Your task to perform on an android device: open a new tab in the chrome app Image 0: 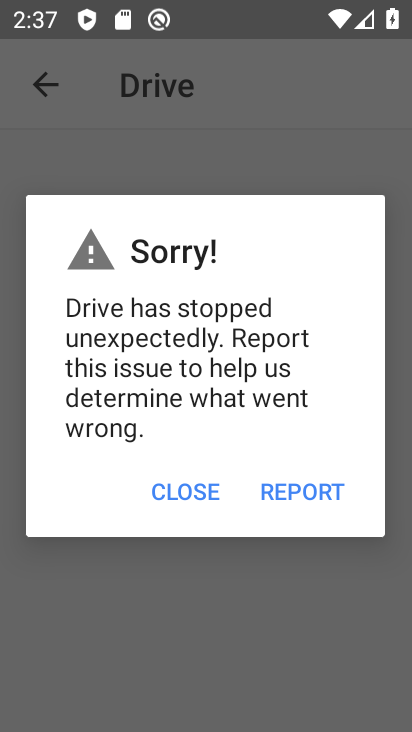
Step 0: press home button
Your task to perform on an android device: open a new tab in the chrome app Image 1: 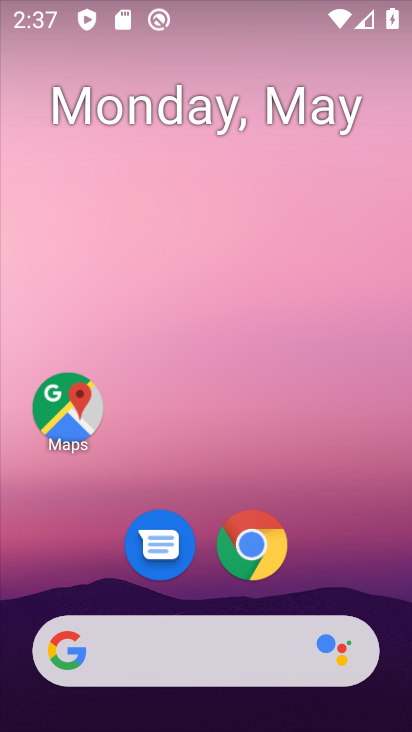
Step 1: click (274, 537)
Your task to perform on an android device: open a new tab in the chrome app Image 2: 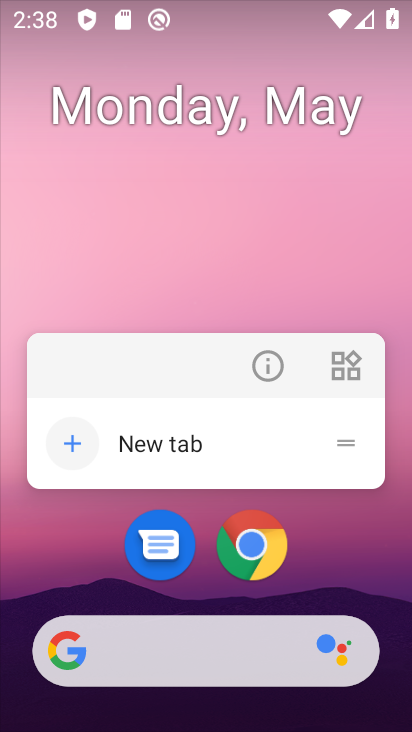
Step 2: click (232, 589)
Your task to perform on an android device: open a new tab in the chrome app Image 3: 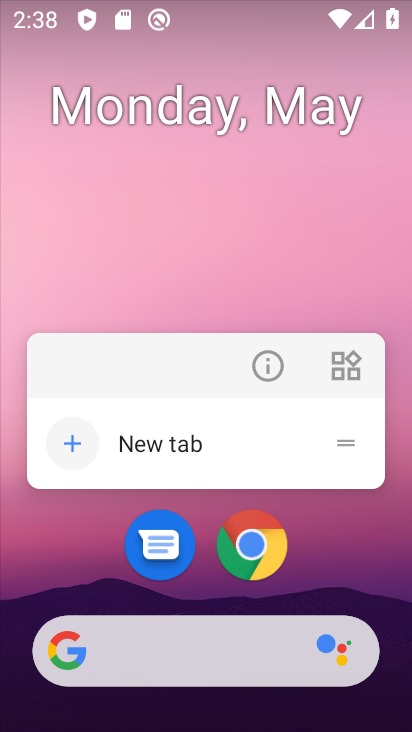
Step 3: click (232, 588)
Your task to perform on an android device: open a new tab in the chrome app Image 4: 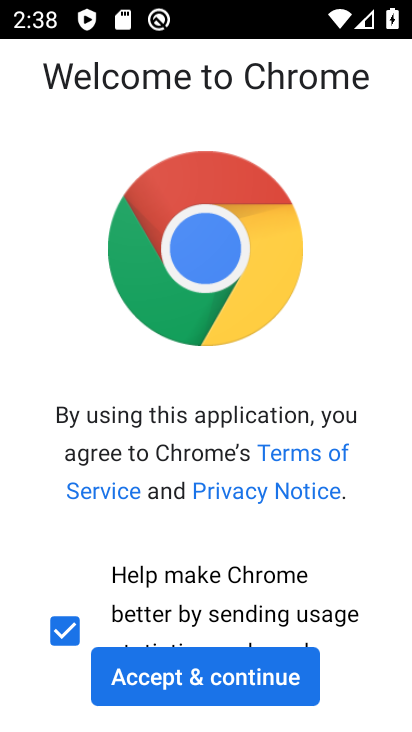
Step 4: press home button
Your task to perform on an android device: open a new tab in the chrome app Image 5: 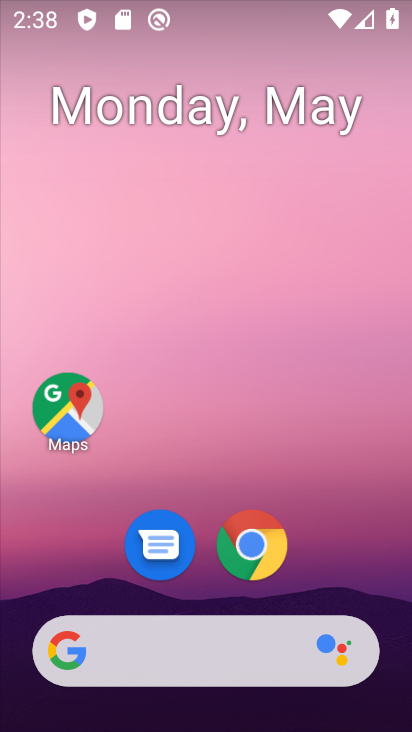
Step 5: click (266, 539)
Your task to perform on an android device: open a new tab in the chrome app Image 6: 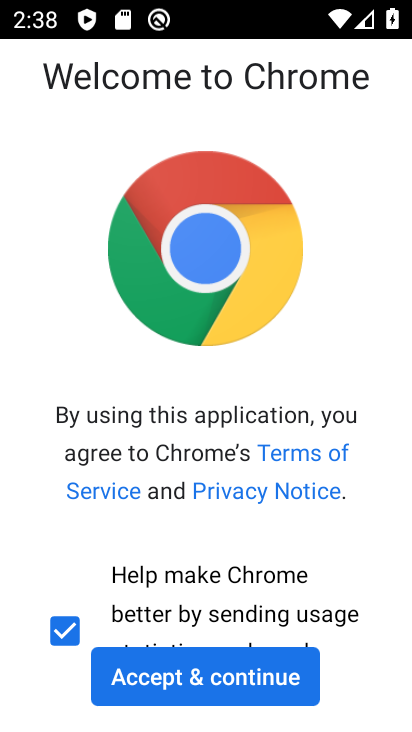
Step 6: click (196, 694)
Your task to perform on an android device: open a new tab in the chrome app Image 7: 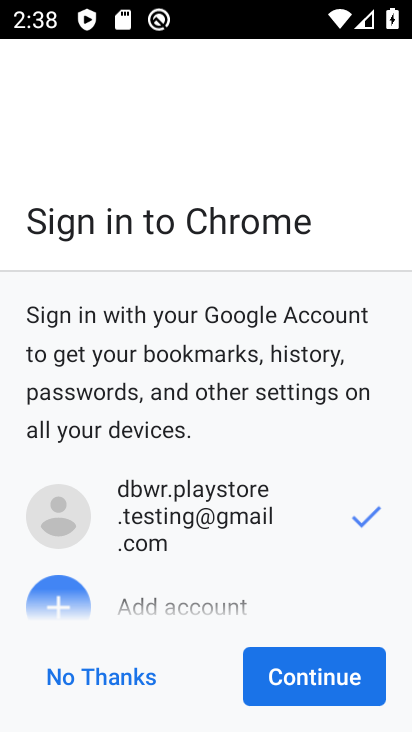
Step 7: click (311, 668)
Your task to perform on an android device: open a new tab in the chrome app Image 8: 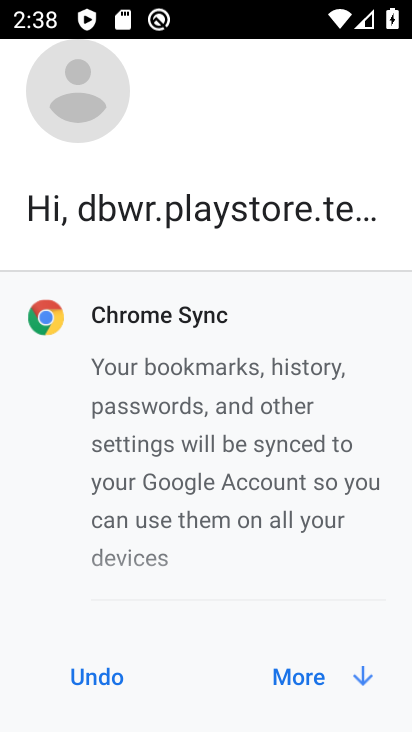
Step 8: click (333, 664)
Your task to perform on an android device: open a new tab in the chrome app Image 9: 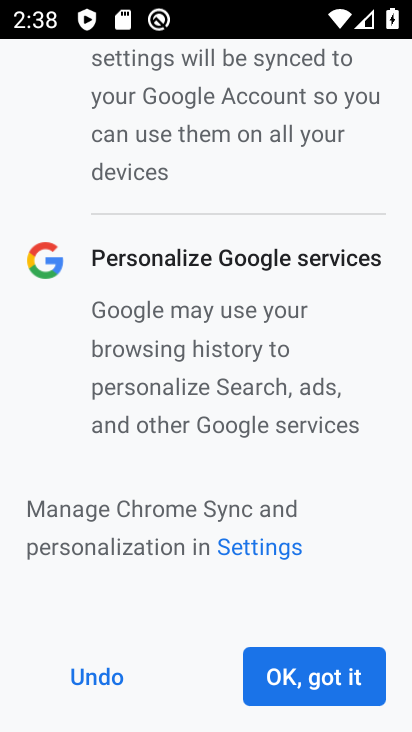
Step 9: click (318, 697)
Your task to perform on an android device: open a new tab in the chrome app Image 10: 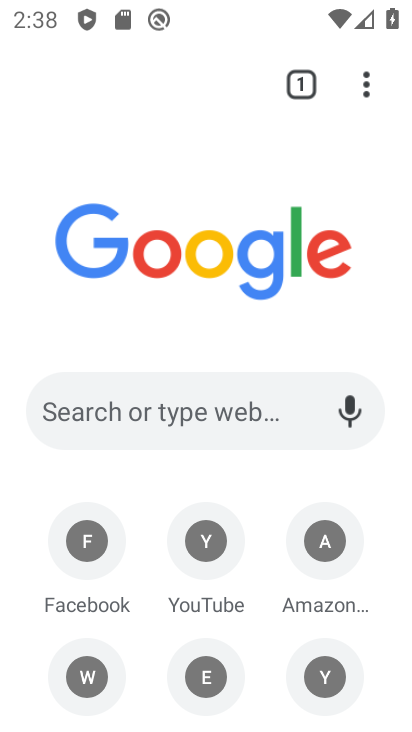
Step 10: click (297, 78)
Your task to perform on an android device: open a new tab in the chrome app Image 11: 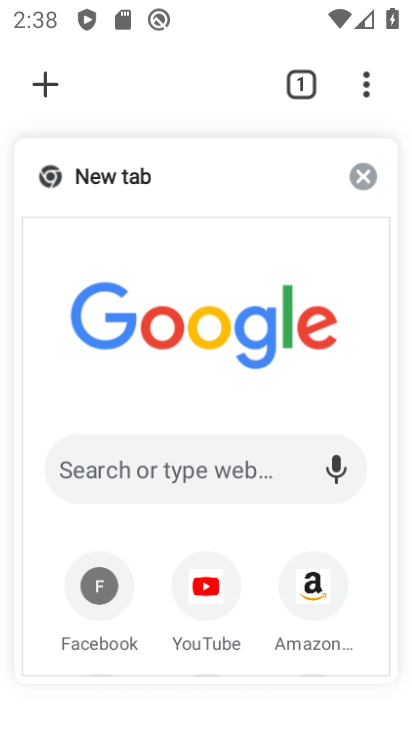
Step 11: click (44, 88)
Your task to perform on an android device: open a new tab in the chrome app Image 12: 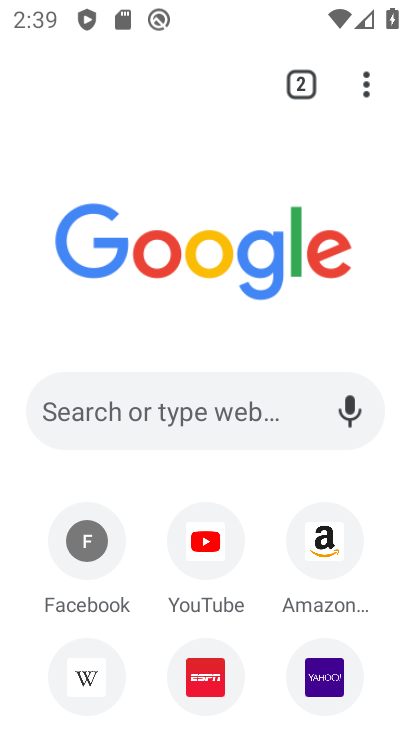
Step 12: task complete